Your task to perform on an android device: Open Amazon Image 0: 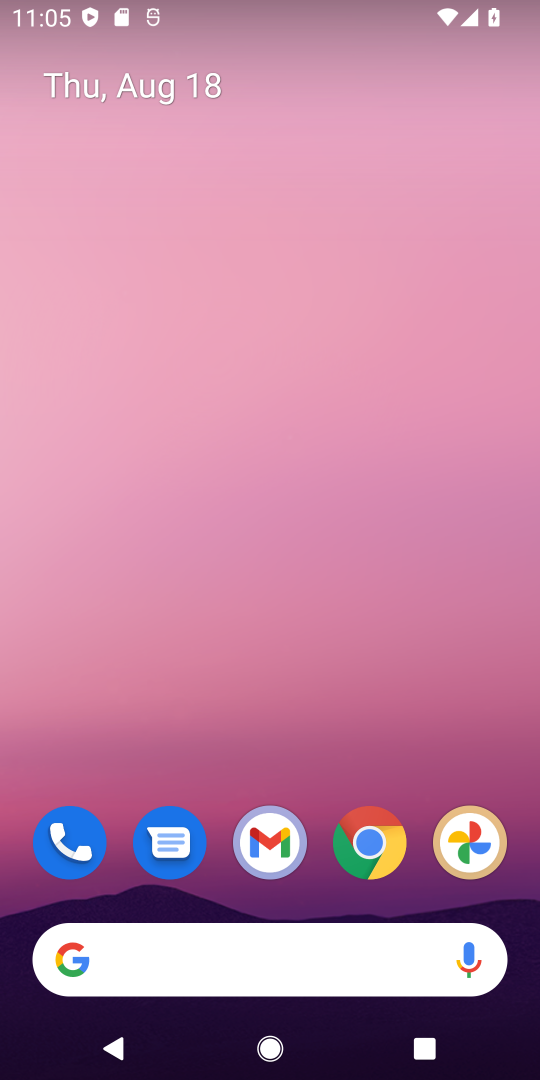
Step 0: click (363, 849)
Your task to perform on an android device: Open Amazon Image 1: 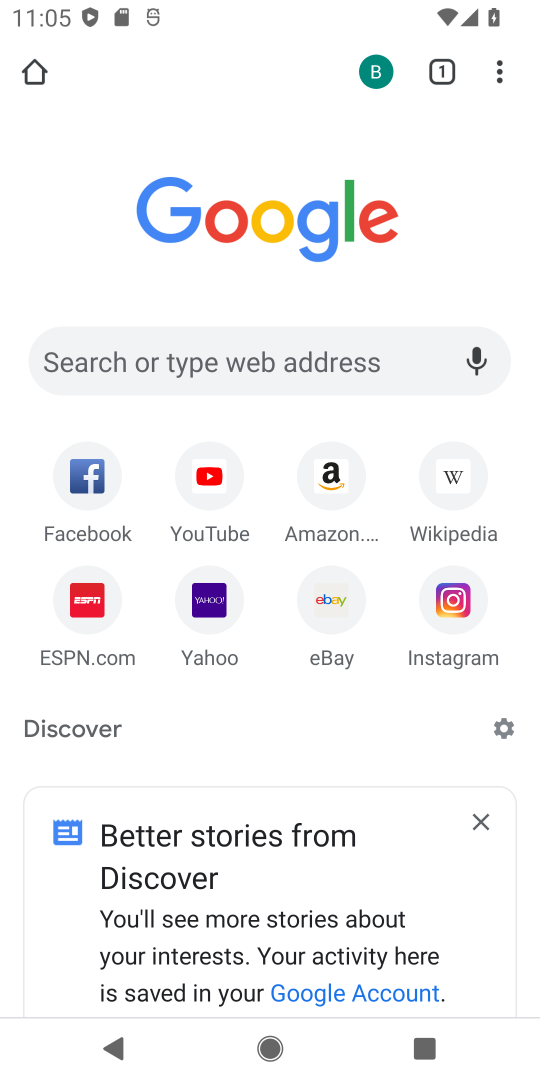
Step 1: click (361, 493)
Your task to perform on an android device: Open Amazon Image 2: 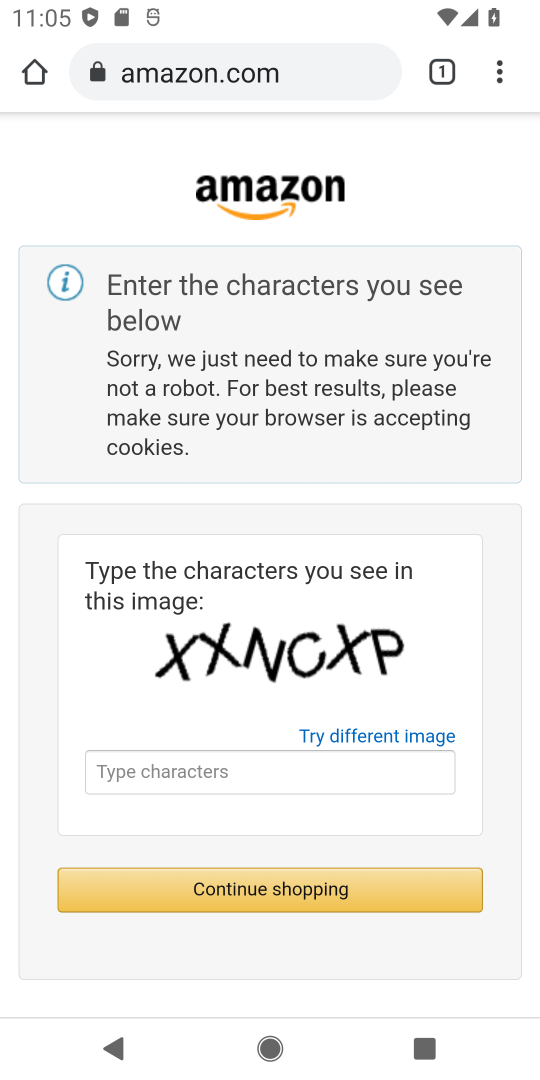
Step 2: task complete